Your task to perform on an android device: Search for sushi restaurants on Maps Image 0: 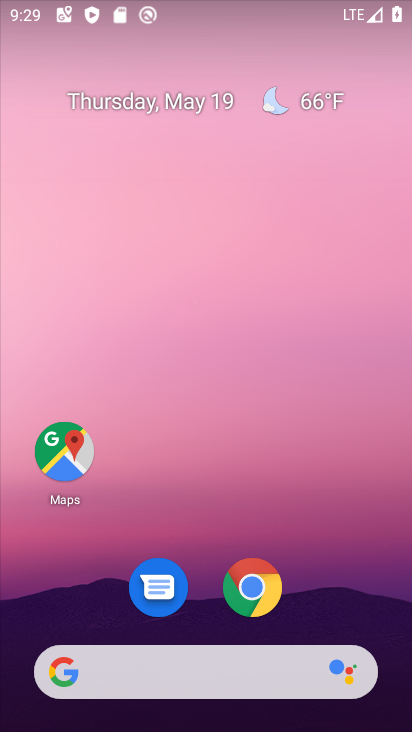
Step 0: press home button
Your task to perform on an android device: Search for sushi restaurants on Maps Image 1: 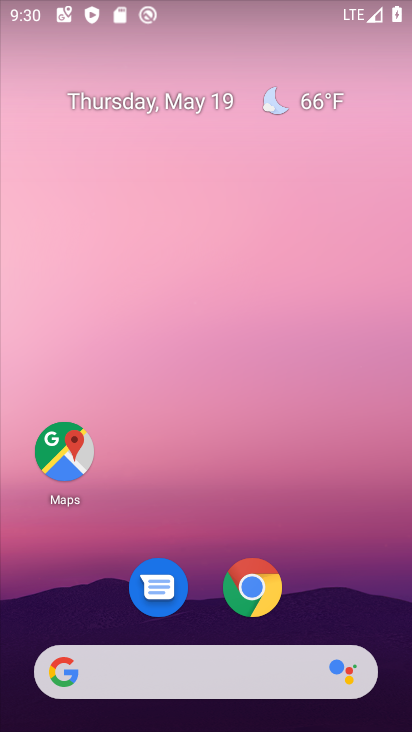
Step 1: drag from (217, 570) to (272, 188)
Your task to perform on an android device: Search for sushi restaurants on Maps Image 2: 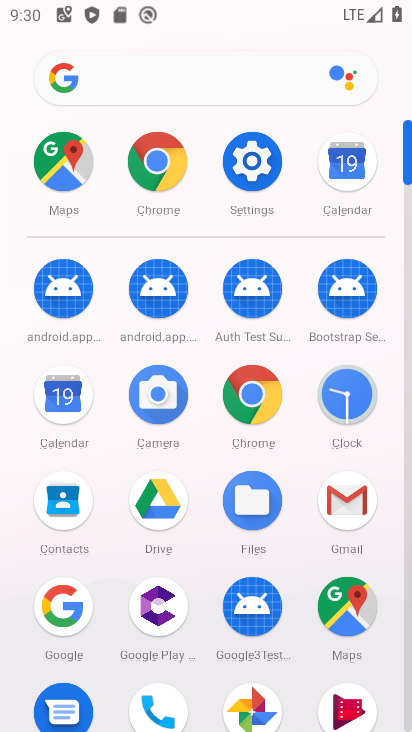
Step 2: click (85, 170)
Your task to perform on an android device: Search for sushi restaurants on Maps Image 3: 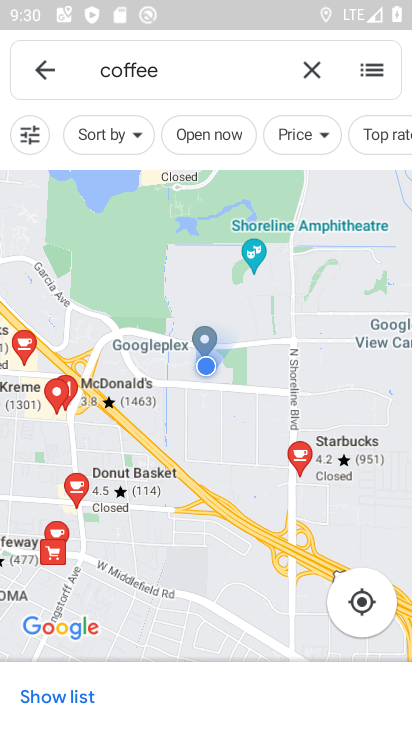
Step 3: click (317, 67)
Your task to perform on an android device: Search for sushi restaurants on Maps Image 4: 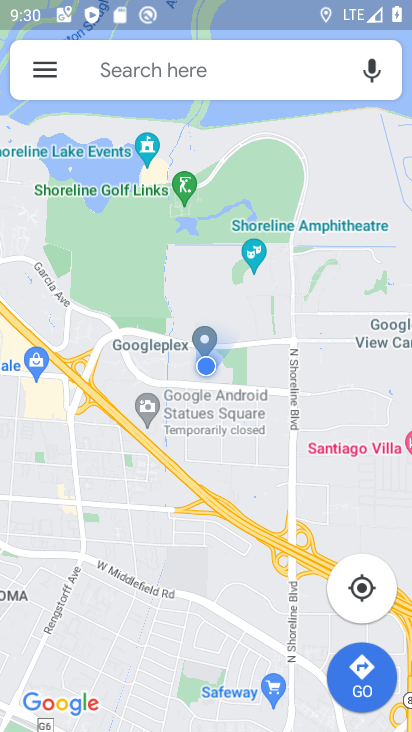
Step 4: click (206, 83)
Your task to perform on an android device: Search for sushi restaurants on Maps Image 5: 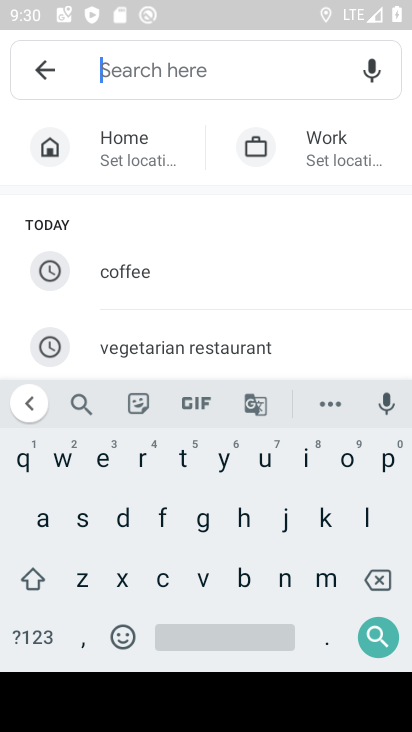
Step 5: click (79, 520)
Your task to perform on an android device: Search for sushi restaurants on Maps Image 6: 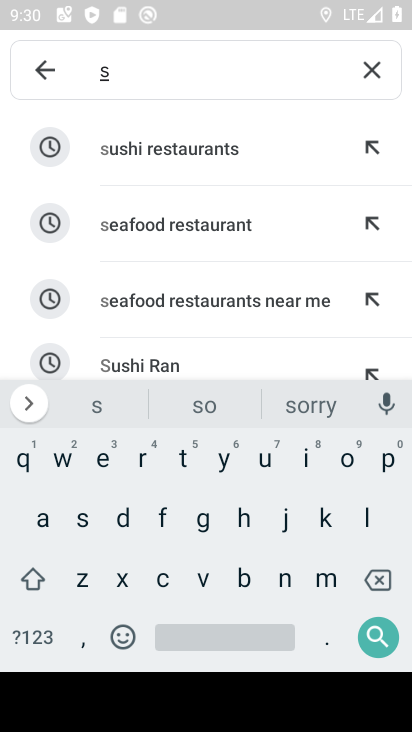
Step 6: click (160, 156)
Your task to perform on an android device: Search for sushi restaurants on Maps Image 7: 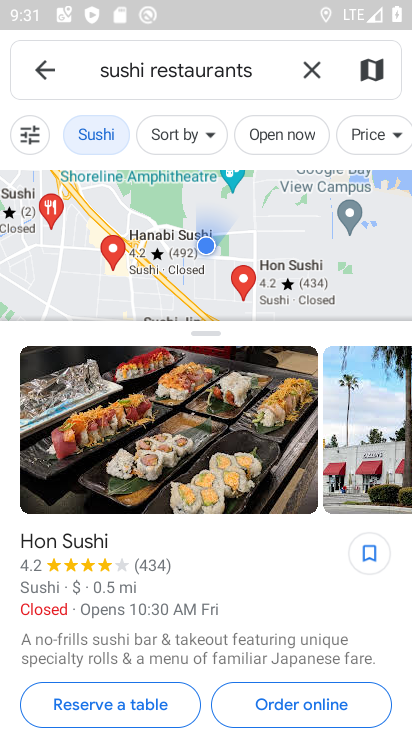
Step 7: task complete